Your task to perform on an android device: Show me popular videos on Youtube Image 0: 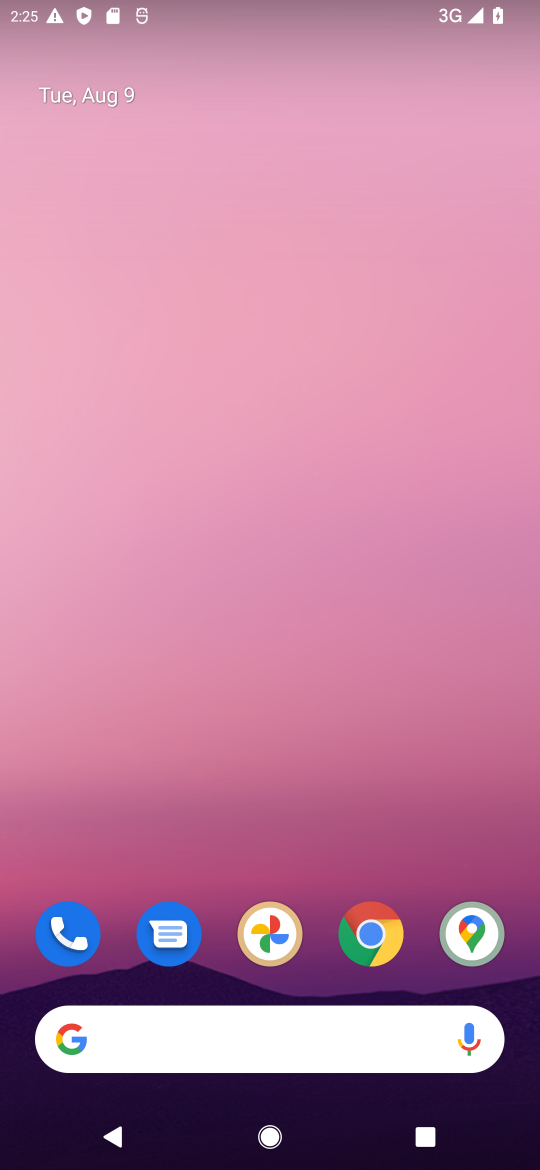
Step 0: drag from (307, 991) to (391, 255)
Your task to perform on an android device: Show me popular videos on Youtube Image 1: 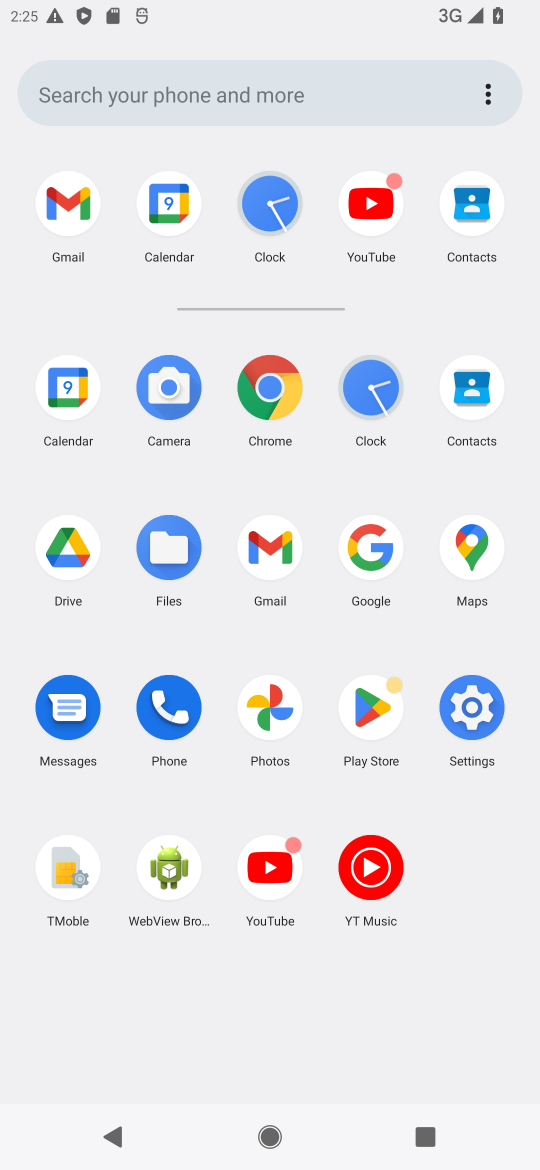
Step 1: click (254, 900)
Your task to perform on an android device: Show me popular videos on Youtube Image 2: 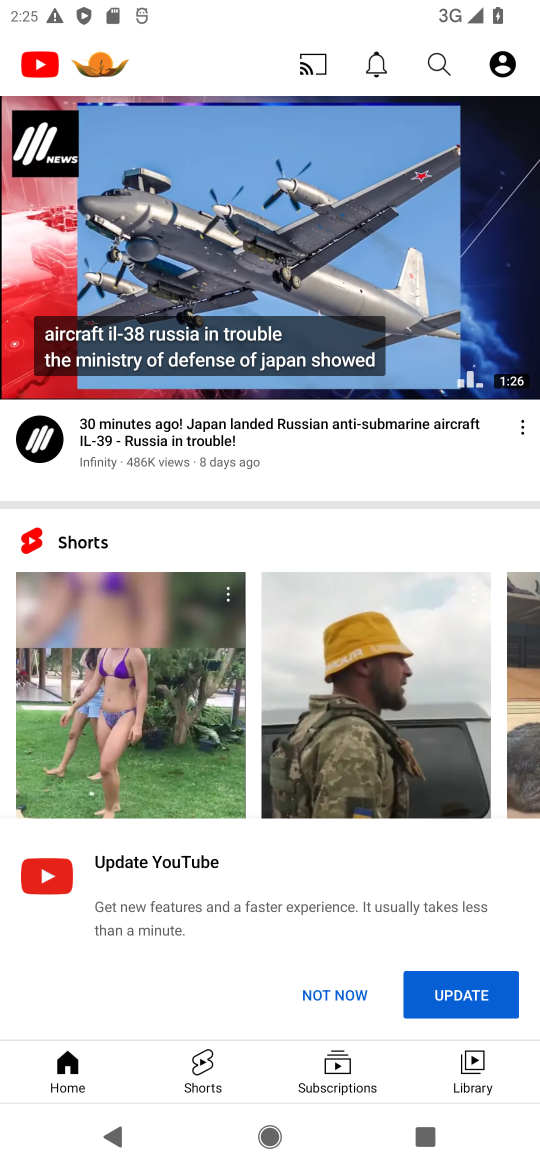
Step 2: task complete